Your task to perform on an android device: Search for logitech g910 on target, select the first entry, add it to the cart, then select checkout. Image 0: 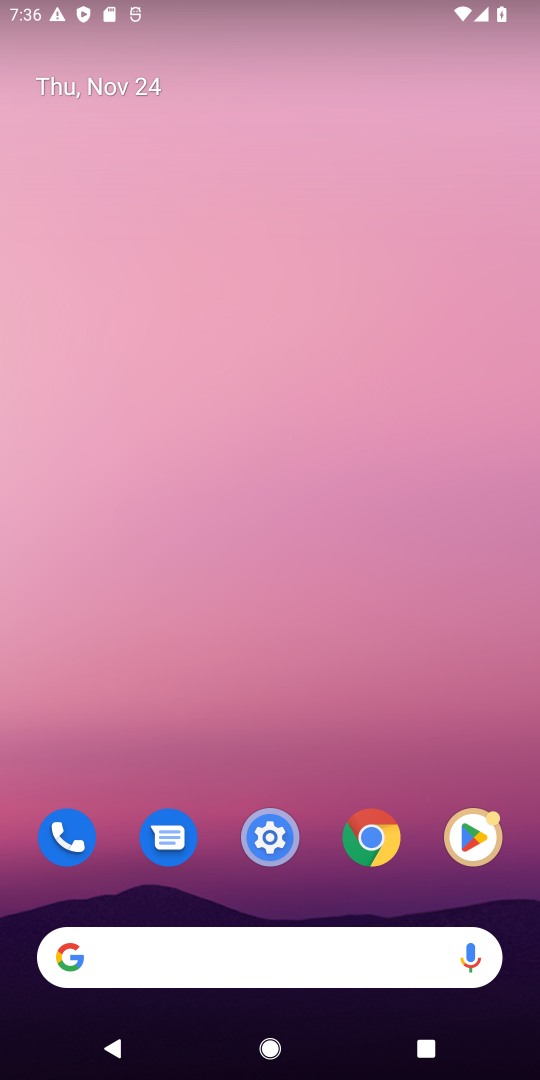
Step 0: click (394, 835)
Your task to perform on an android device: Search for logitech g910 on target, select the first entry, add it to the cart, then select checkout. Image 1: 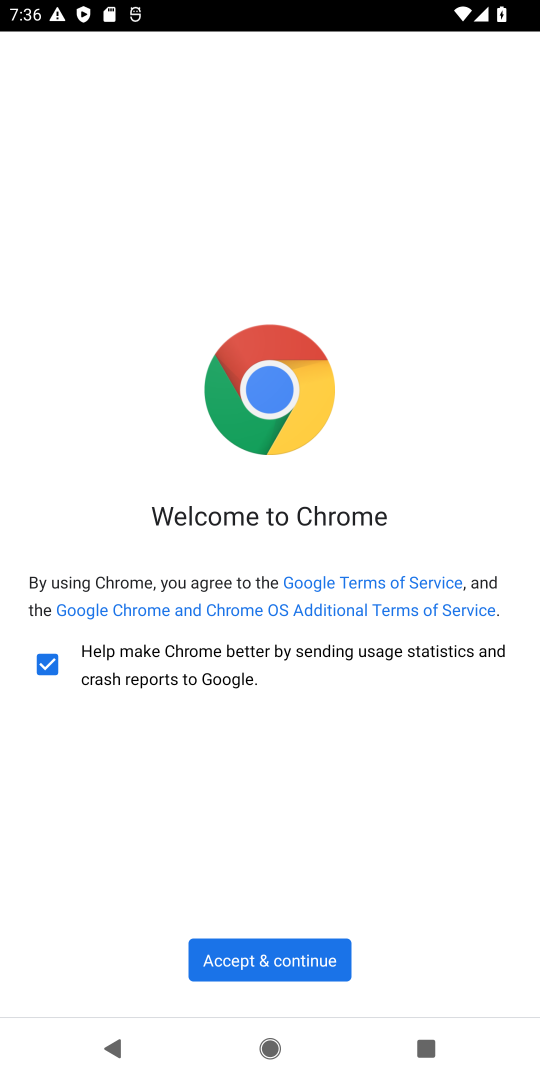
Step 1: click (238, 963)
Your task to perform on an android device: Search for logitech g910 on target, select the first entry, add it to the cart, then select checkout. Image 2: 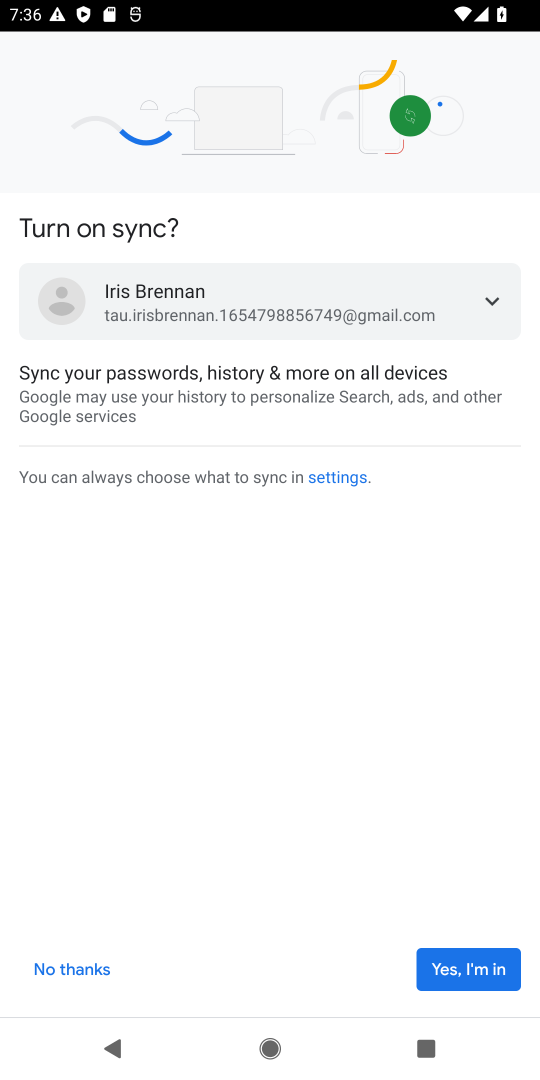
Step 2: click (456, 968)
Your task to perform on an android device: Search for logitech g910 on target, select the first entry, add it to the cart, then select checkout. Image 3: 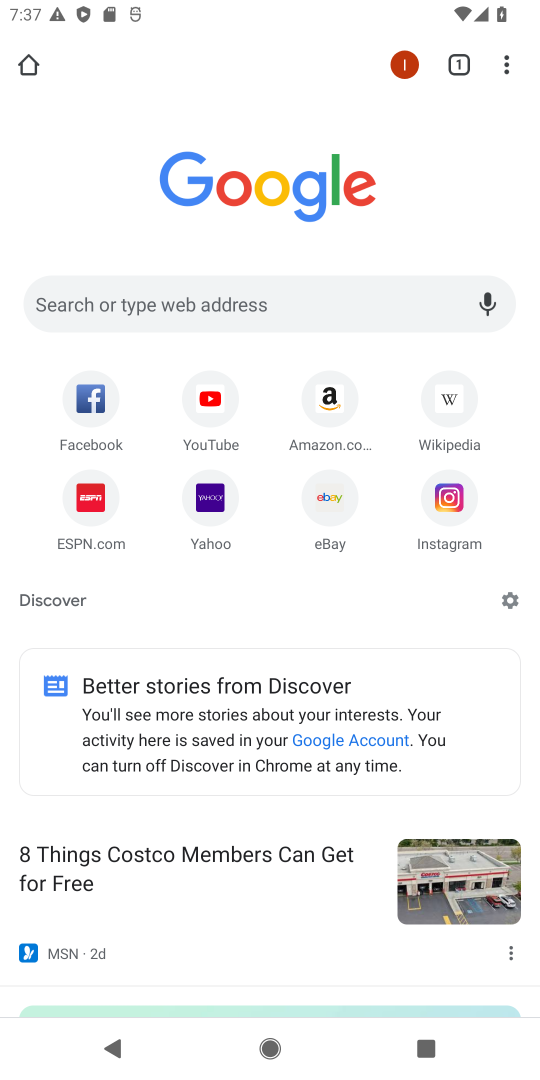
Step 3: click (312, 309)
Your task to perform on an android device: Search for logitech g910 on target, select the first entry, add it to the cart, then select checkout. Image 4: 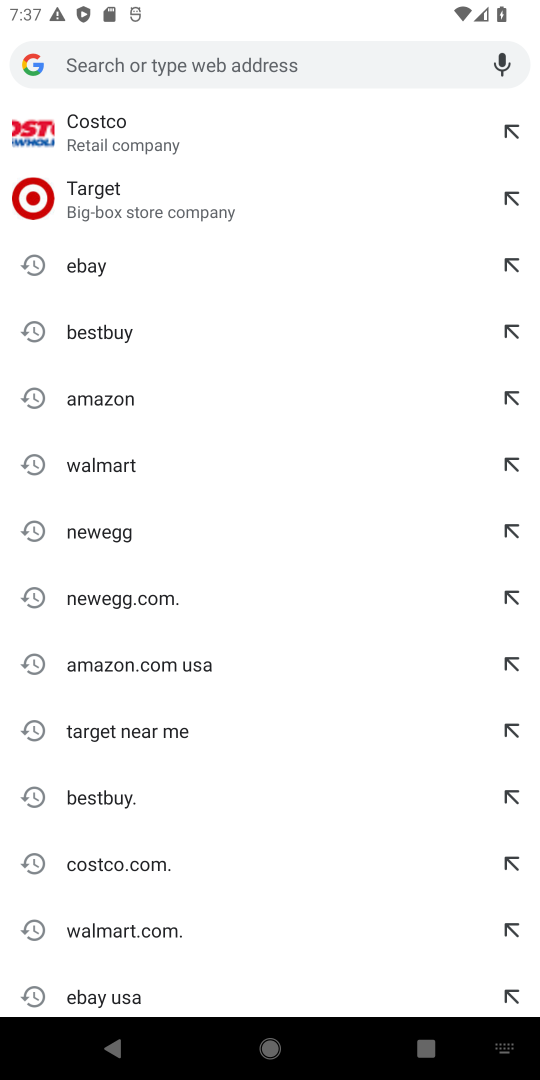
Step 4: type "target"
Your task to perform on an android device: Search for logitech g910 on target, select the first entry, add it to the cart, then select checkout. Image 5: 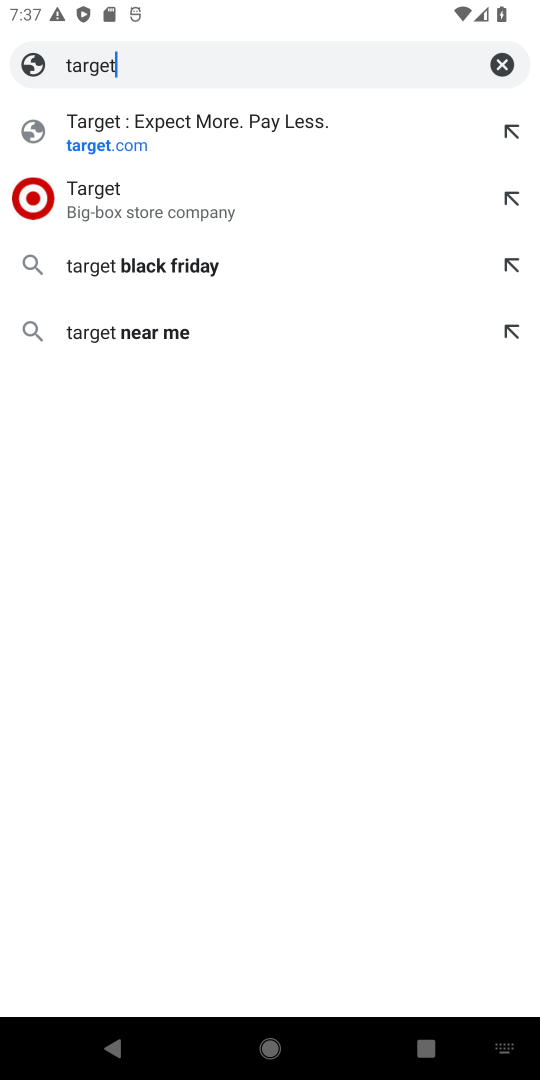
Step 5: click (188, 138)
Your task to perform on an android device: Search for logitech g910 on target, select the first entry, add it to the cart, then select checkout. Image 6: 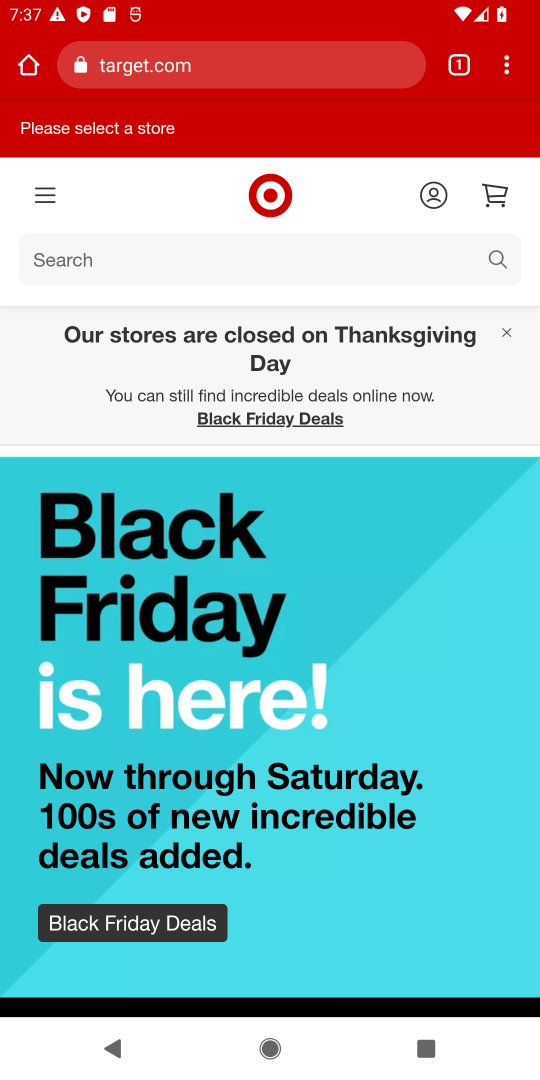
Step 6: click (263, 256)
Your task to perform on an android device: Search for logitech g910 on target, select the first entry, add it to the cart, then select checkout. Image 7: 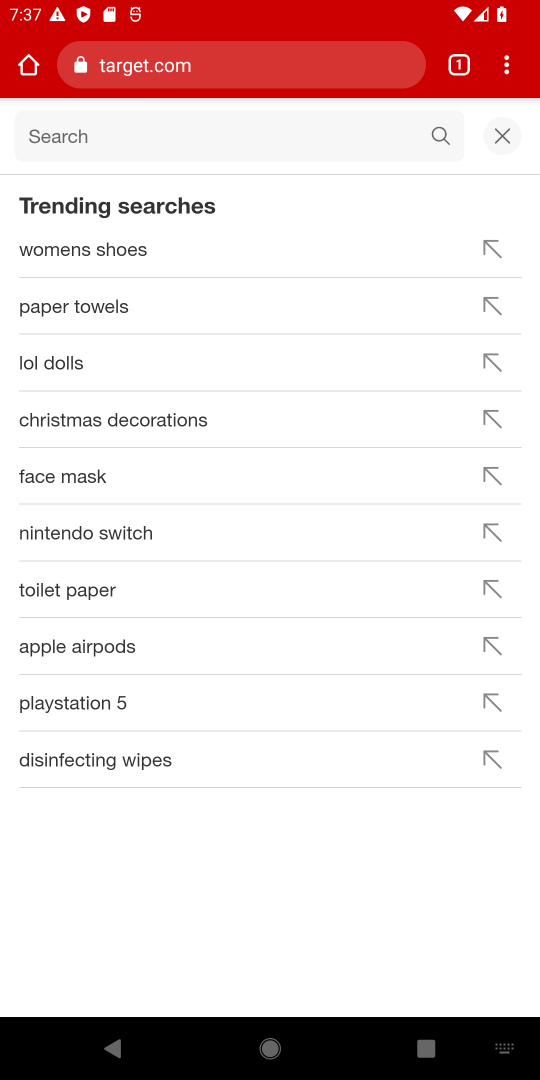
Step 7: type "logitech g910"
Your task to perform on an android device: Search for logitech g910 on target, select the first entry, add it to the cart, then select checkout. Image 8: 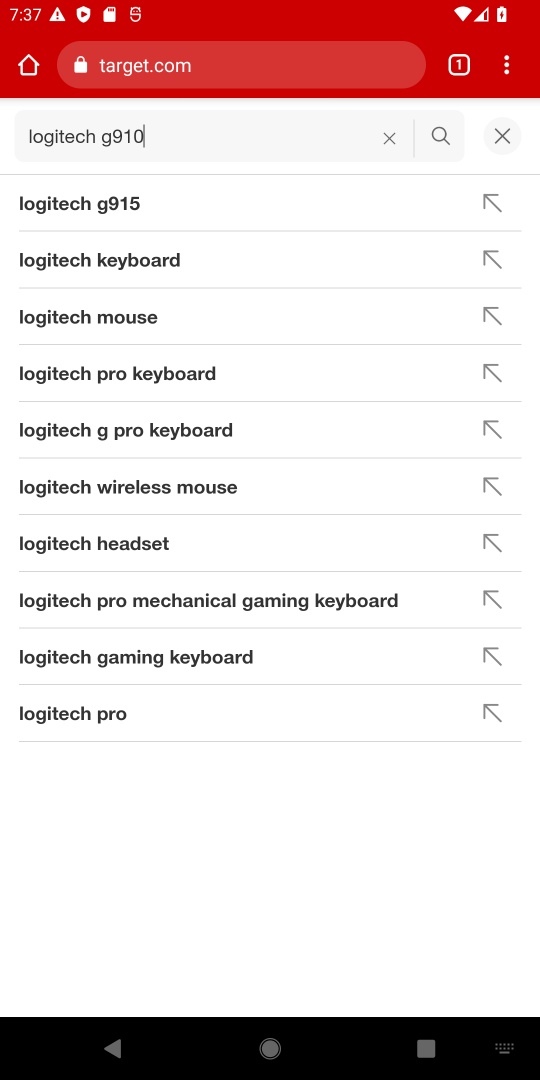
Step 8: click (442, 137)
Your task to perform on an android device: Search for logitech g910 on target, select the first entry, add it to the cart, then select checkout. Image 9: 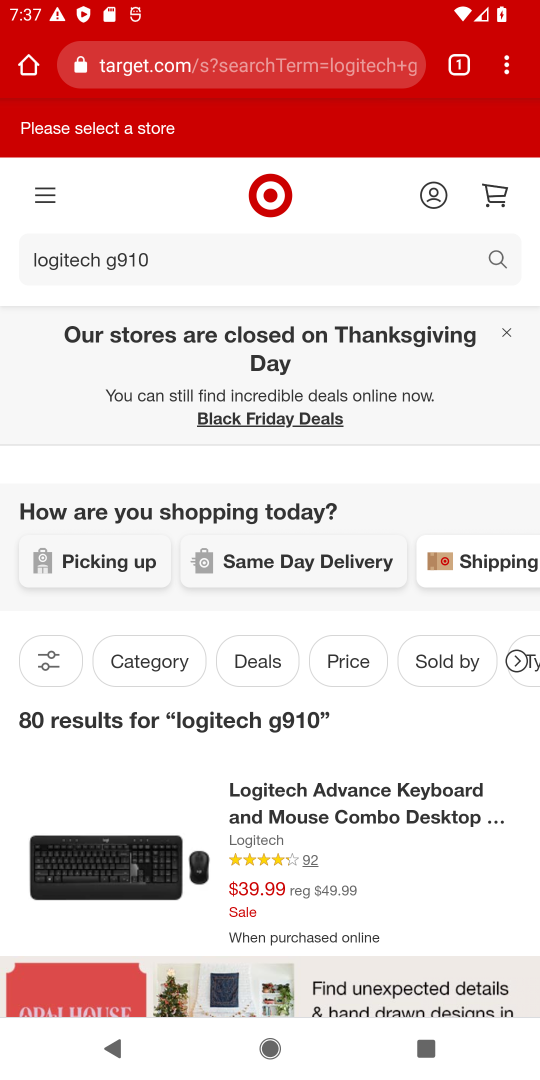
Step 9: drag from (239, 832) to (269, 559)
Your task to perform on an android device: Search for logitech g910 on target, select the first entry, add it to the cart, then select checkout. Image 10: 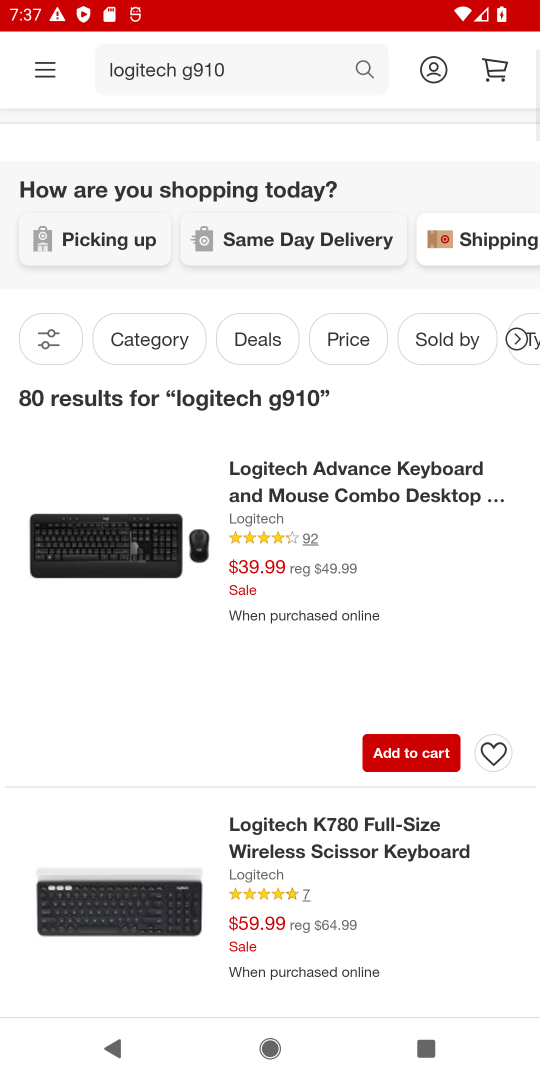
Step 10: click (390, 749)
Your task to perform on an android device: Search for logitech g910 on target, select the first entry, add it to the cart, then select checkout. Image 11: 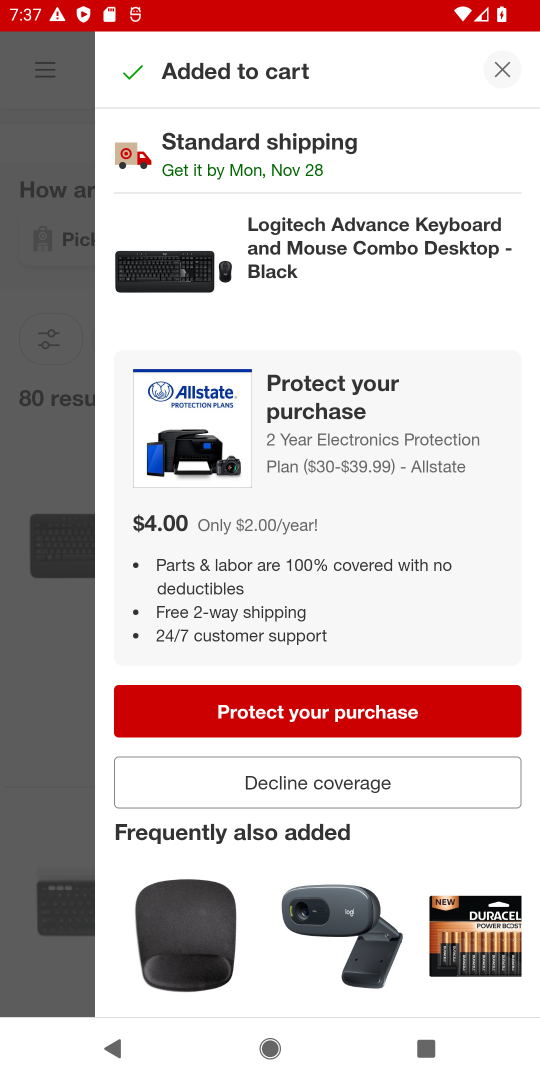
Step 11: click (305, 801)
Your task to perform on an android device: Search for logitech g910 on target, select the first entry, add it to the cart, then select checkout. Image 12: 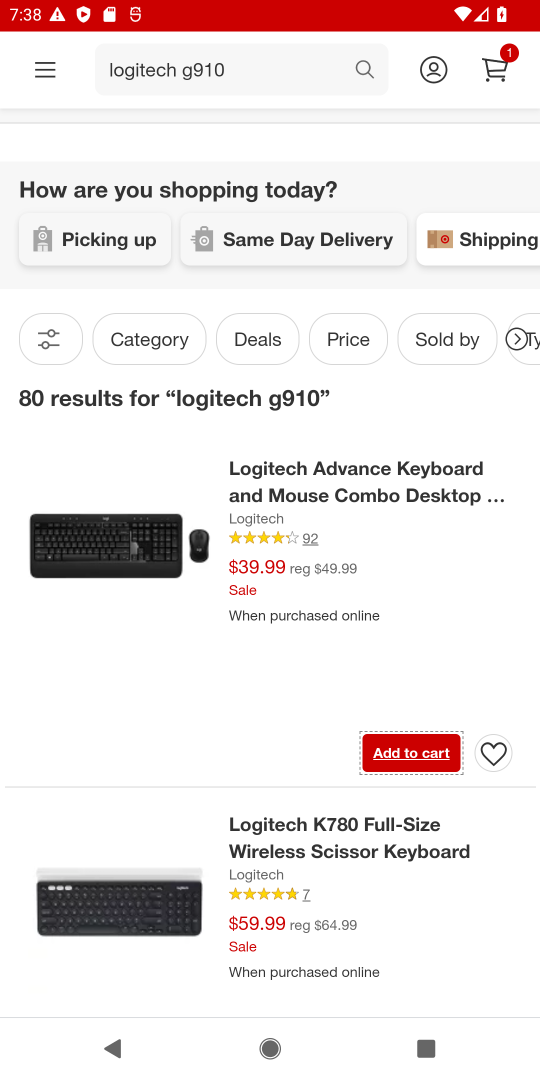
Step 12: click (499, 63)
Your task to perform on an android device: Search for logitech g910 on target, select the first entry, add it to the cart, then select checkout. Image 13: 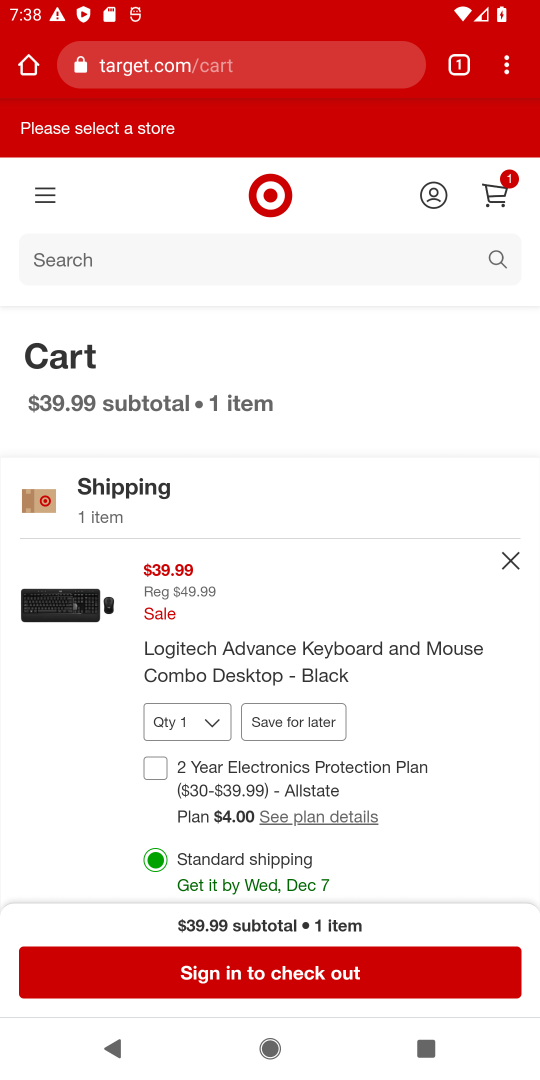
Step 13: click (299, 979)
Your task to perform on an android device: Search for logitech g910 on target, select the first entry, add it to the cart, then select checkout. Image 14: 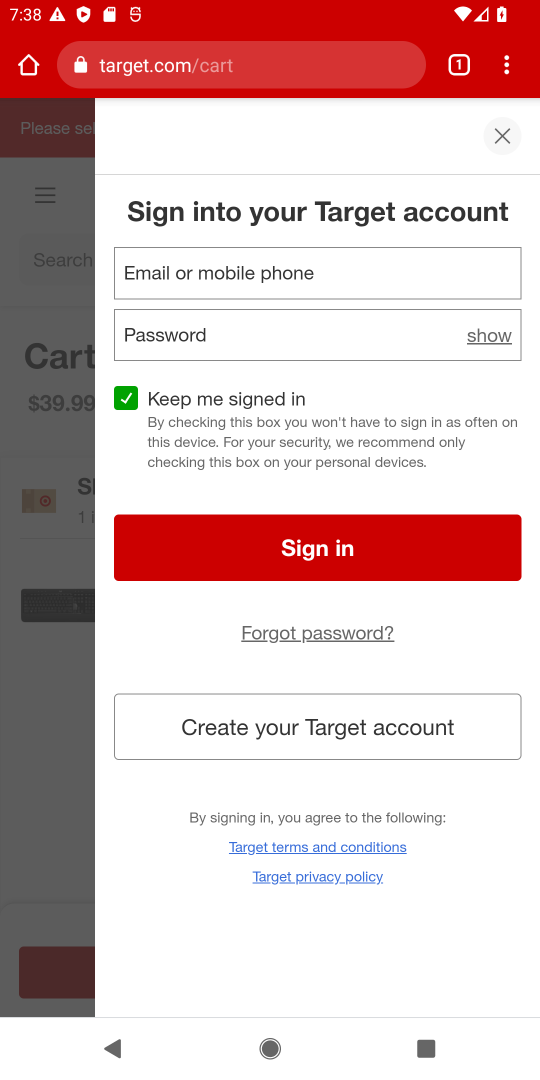
Step 14: task complete